Your task to perform on an android device: View the shopping cart on ebay.com. Search for "beats solo 3" on ebay.com, select the first entry, and add it to the cart. Image 0: 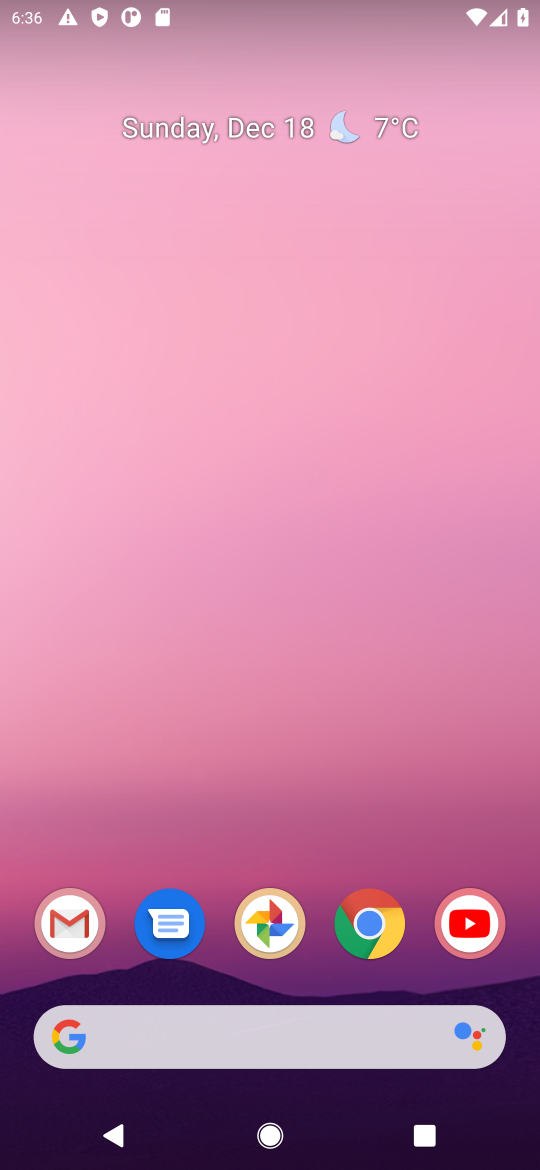
Step 0: press home button
Your task to perform on an android device: View the shopping cart on ebay.com. Search for "beats solo 3" on ebay.com, select the first entry, and add it to the cart. Image 1: 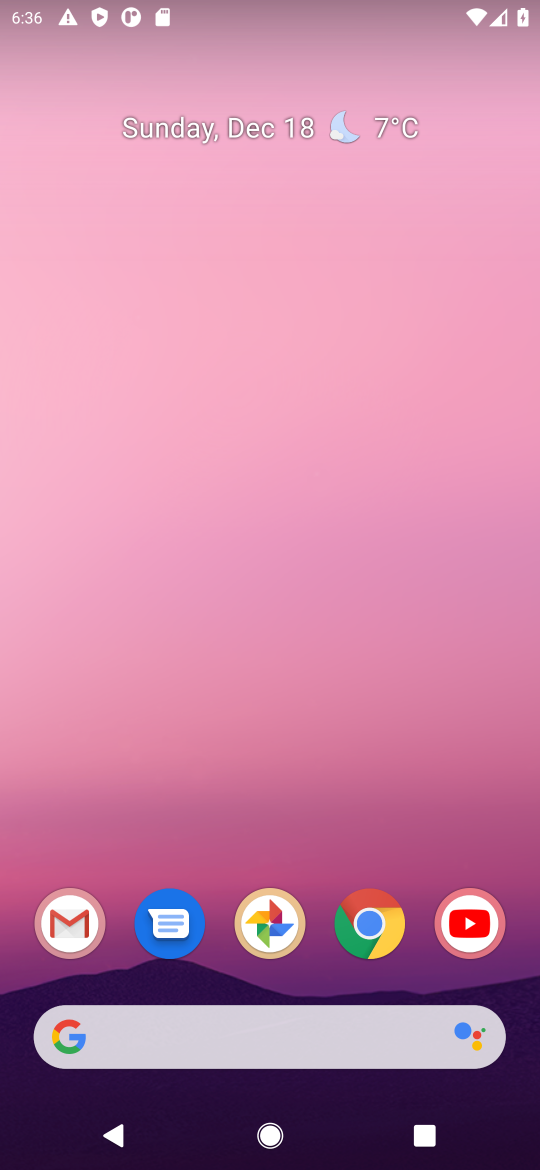
Step 1: click (146, 1026)
Your task to perform on an android device: View the shopping cart on ebay.com. Search for "beats solo 3" on ebay.com, select the first entry, and add it to the cart. Image 2: 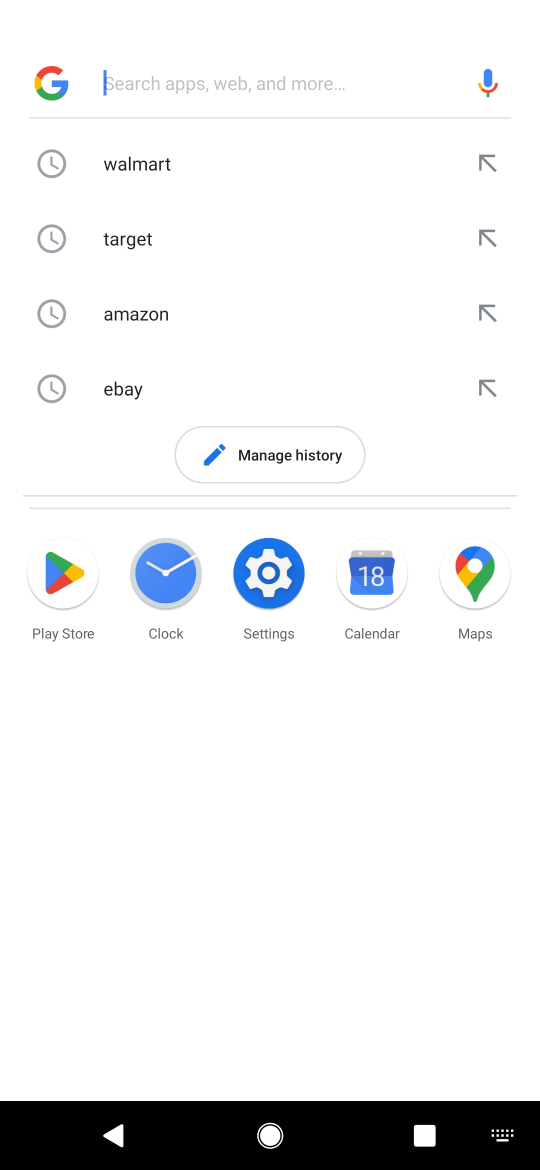
Step 2: type "ebay.com"
Your task to perform on an android device: View the shopping cart on ebay.com. Search for "beats solo 3" on ebay.com, select the first entry, and add it to the cart. Image 3: 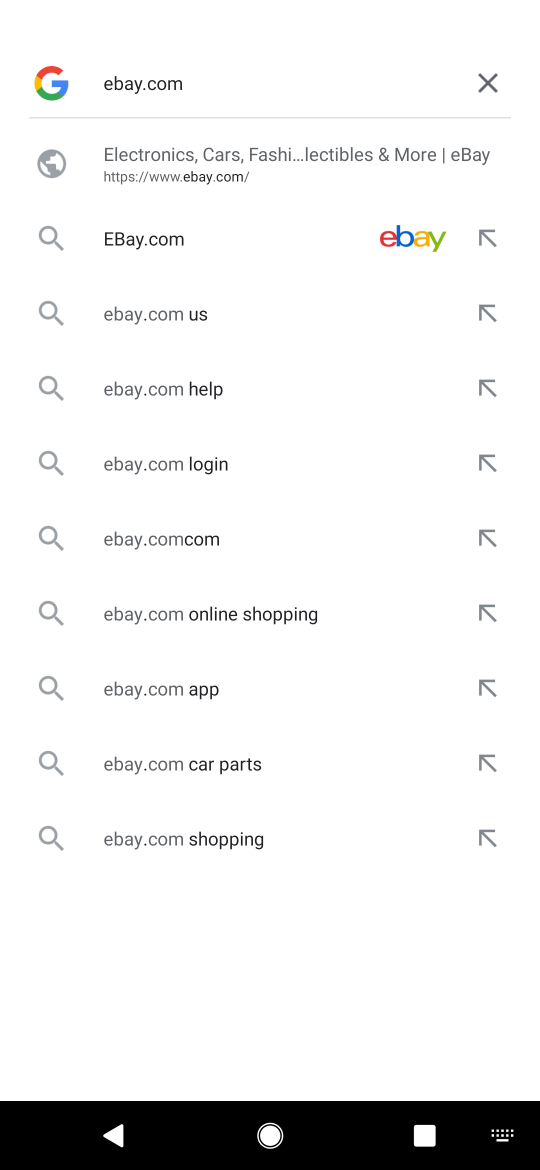
Step 3: press enter
Your task to perform on an android device: View the shopping cart on ebay.com. Search for "beats solo 3" on ebay.com, select the first entry, and add it to the cart. Image 4: 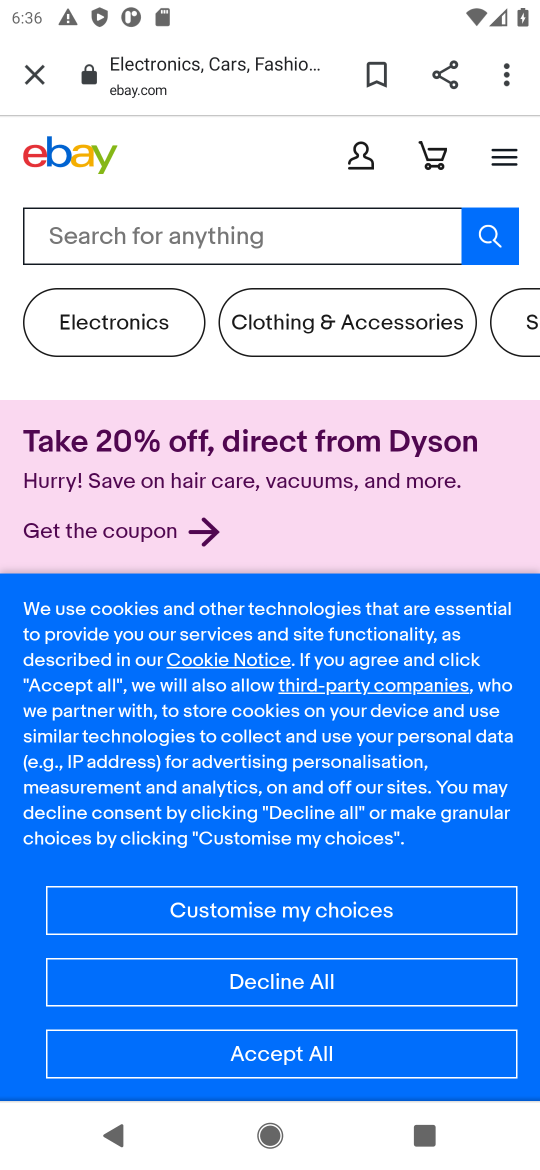
Step 4: click (226, 227)
Your task to perform on an android device: View the shopping cart on ebay.com. Search for "beats solo 3" on ebay.com, select the first entry, and add it to the cart. Image 5: 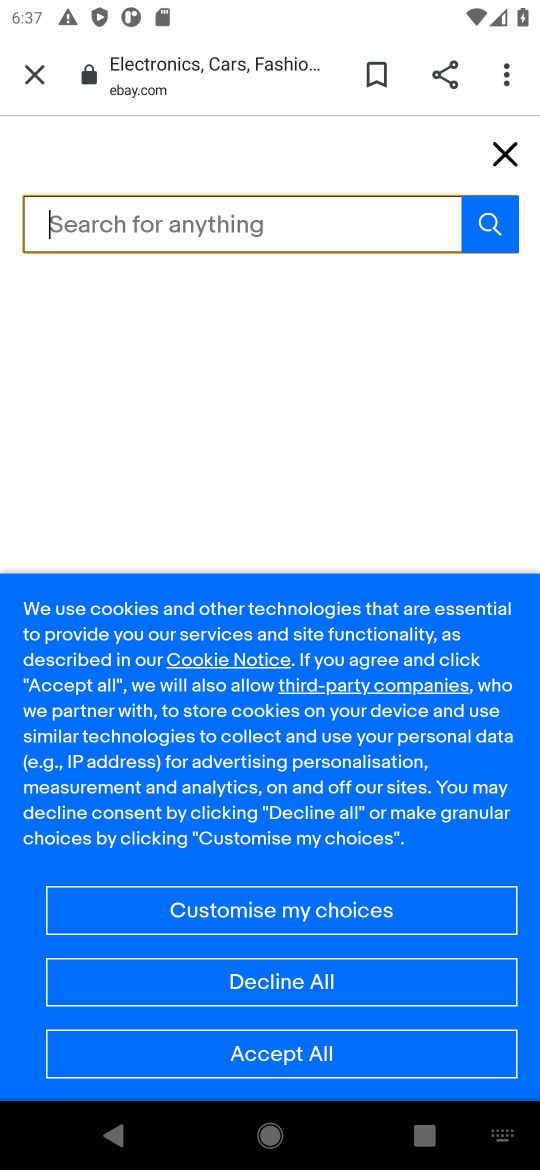
Step 5: press enter
Your task to perform on an android device: View the shopping cart on ebay.com. Search for "beats solo 3" on ebay.com, select the first entry, and add it to the cart. Image 6: 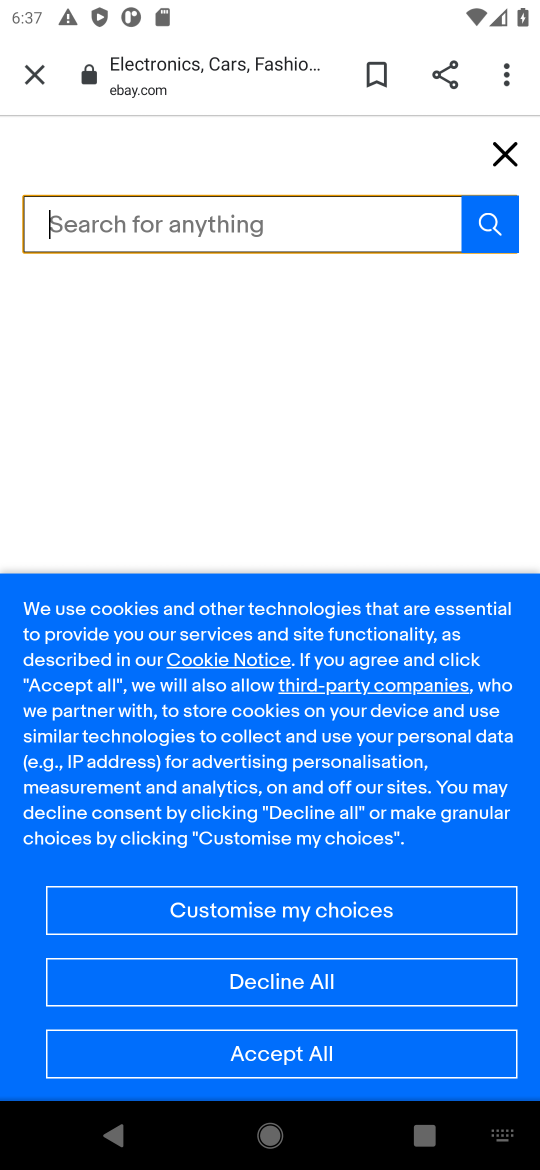
Step 6: type "beats solo 3"
Your task to perform on an android device: View the shopping cart on ebay.com. Search for "beats solo 3" on ebay.com, select the first entry, and add it to the cart. Image 7: 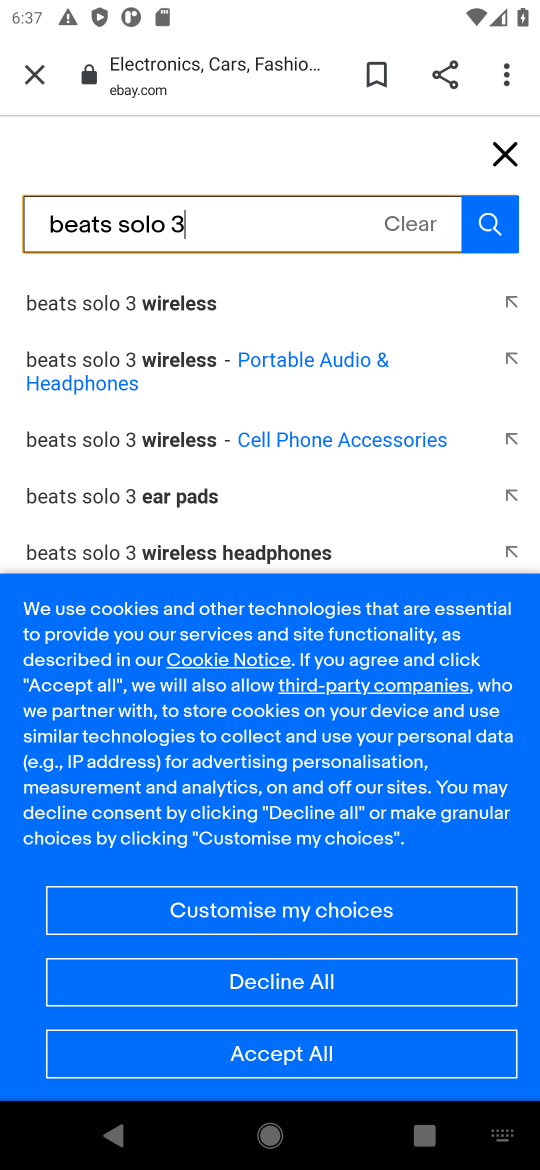
Step 7: click (486, 220)
Your task to perform on an android device: View the shopping cart on ebay.com. Search for "beats solo 3" on ebay.com, select the first entry, and add it to the cart. Image 8: 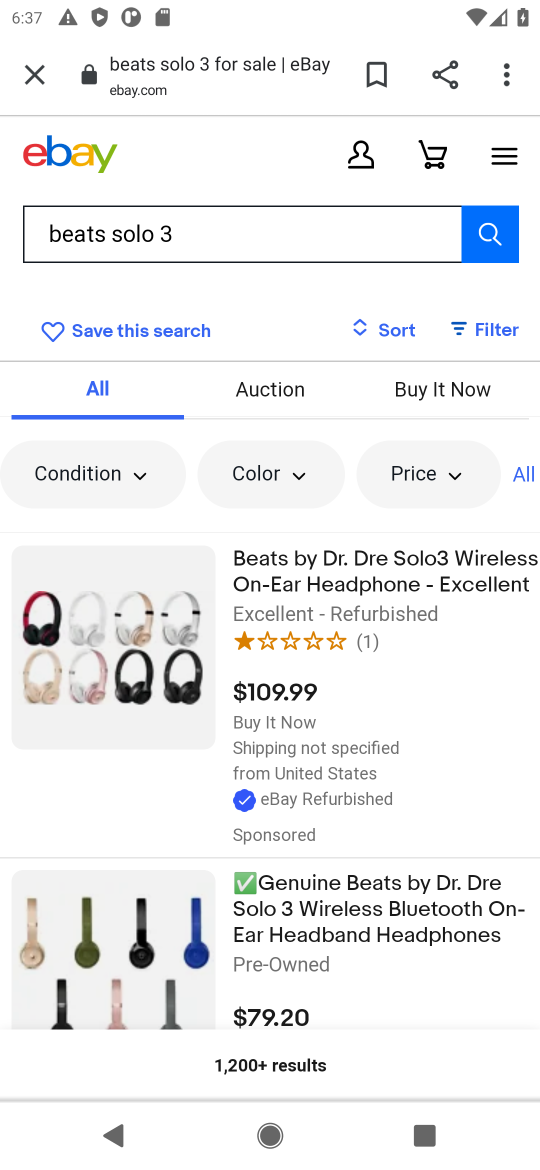
Step 8: drag from (359, 917) to (379, 550)
Your task to perform on an android device: View the shopping cart on ebay.com. Search for "beats solo 3" on ebay.com, select the first entry, and add it to the cart. Image 9: 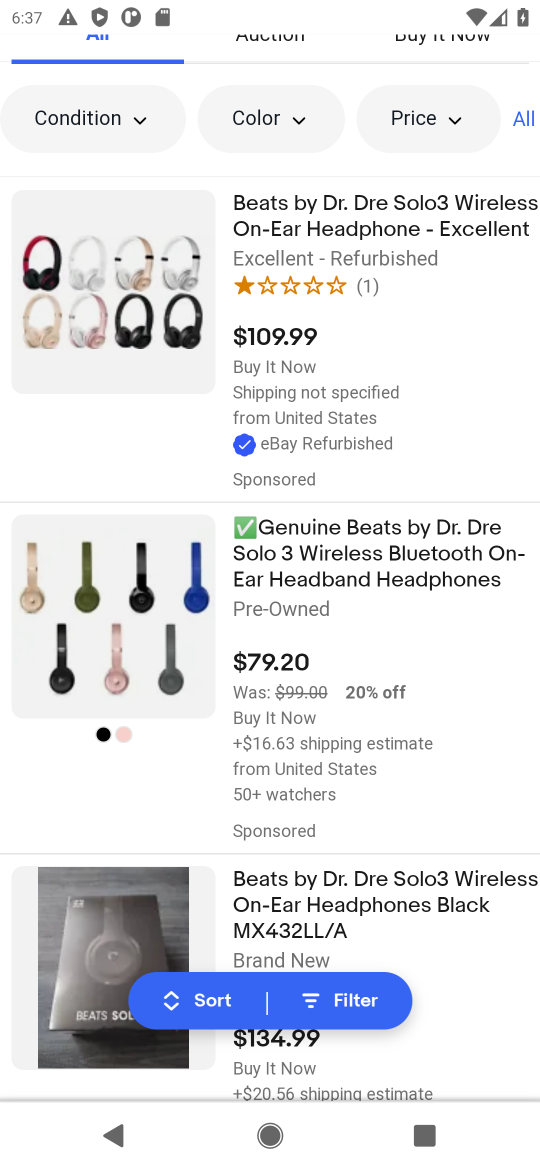
Step 9: click (307, 231)
Your task to perform on an android device: View the shopping cart on ebay.com. Search for "beats solo 3" on ebay.com, select the first entry, and add it to the cart. Image 10: 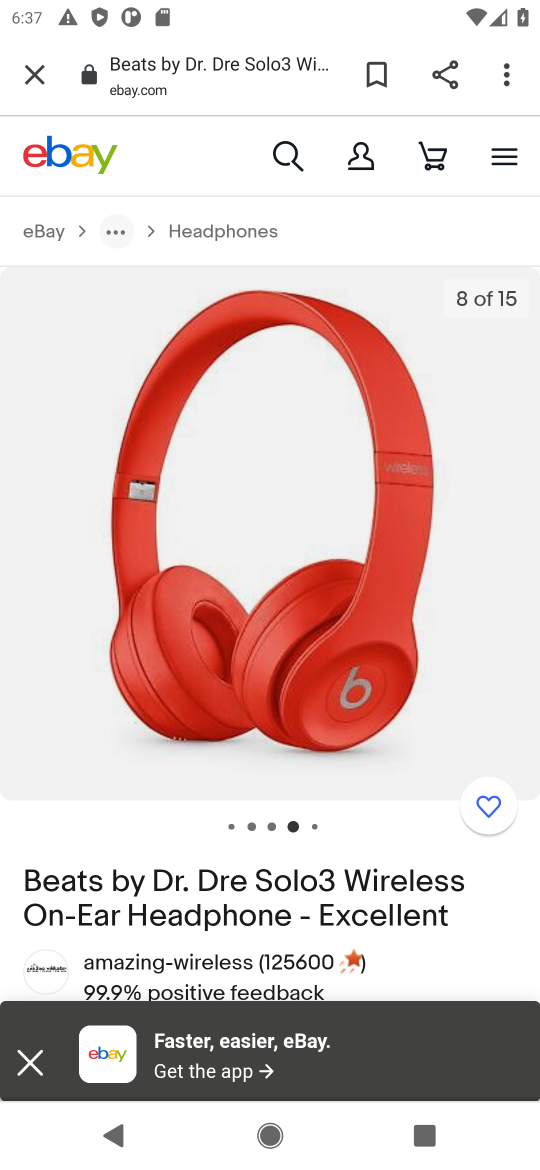
Step 10: click (18, 1063)
Your task to perform on an android device: View the shopping cart on ebay.com. Search for "beats solo 3" on ebay.com, select the first entry, and add it to the cart. Image 11: 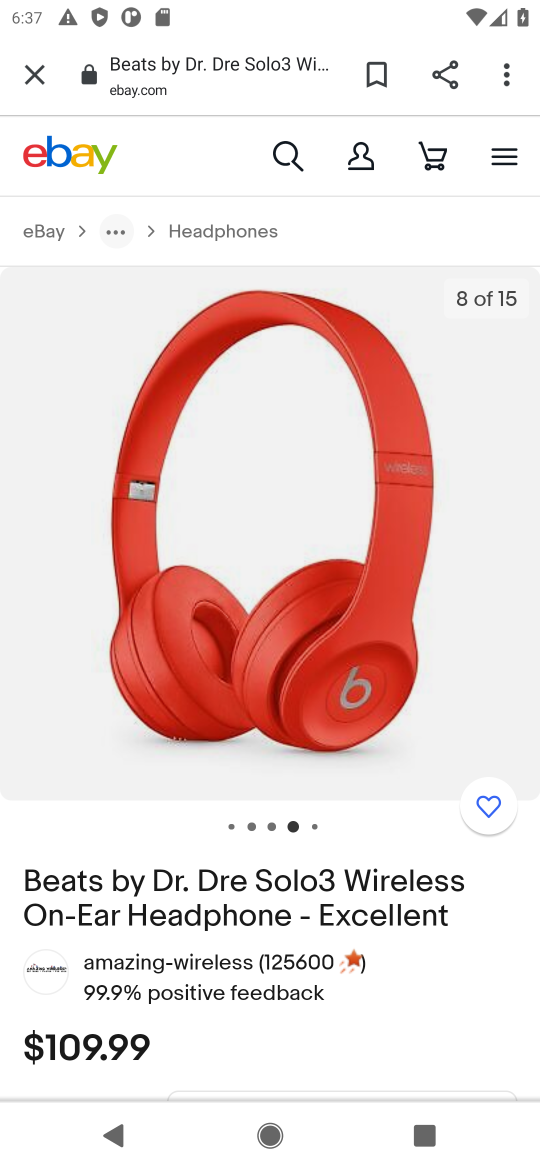
Step 11: drag from (327, 908) to (371, 478)
Your task to perform on an android device: View the shopping cart on ebay.com. Search for "beats solo 3" on ebay.com, select the first entry, and add it to the cart. Image 12: 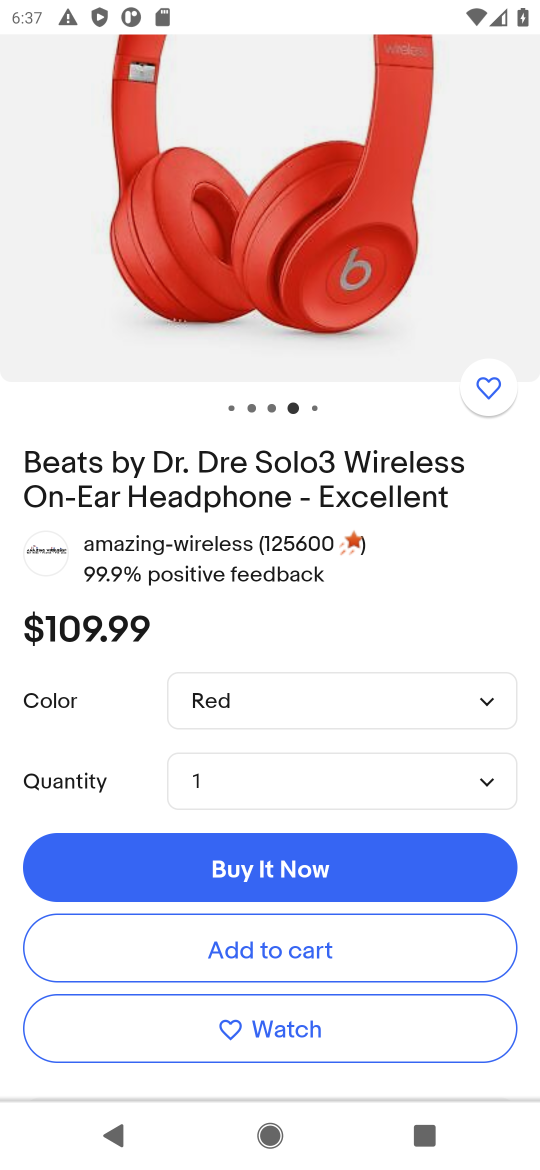
Step 12: drag from (336, 1001) to (363, 550)
Your task to perform on an android device: View the shopping cart on ebay.com. Search for "beats solo 3" on ebay.com, select the first entry, and add it to the cart. Image 13: 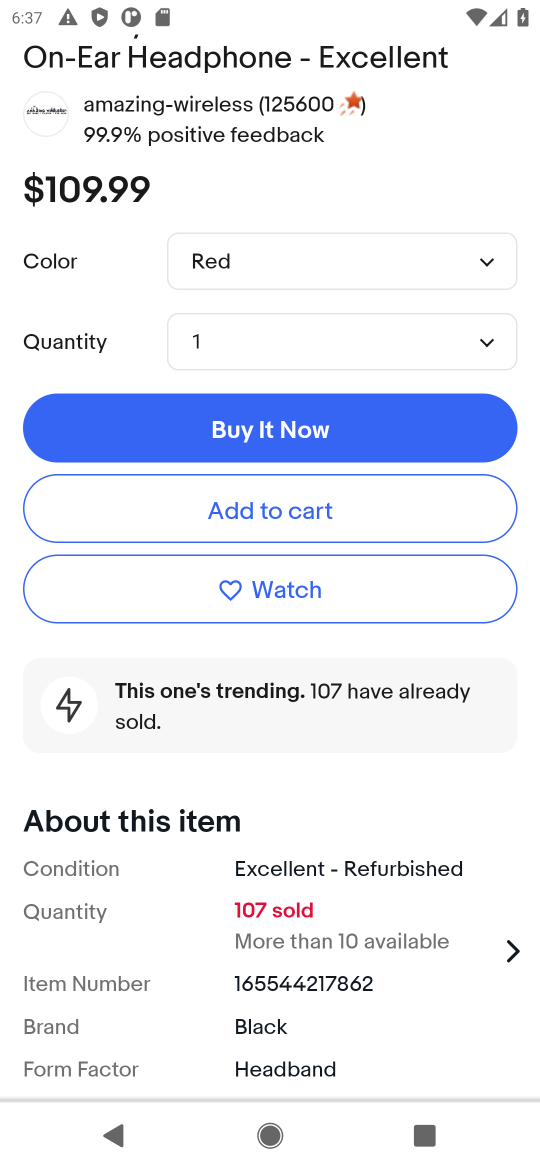
Step 13: click (215, 509)
Your task to perform on an android device: View the shopping cart on ebay.com. Search for "beats solo 3" on ebay.com, select the first entry, and add it to the cart. Image 14: 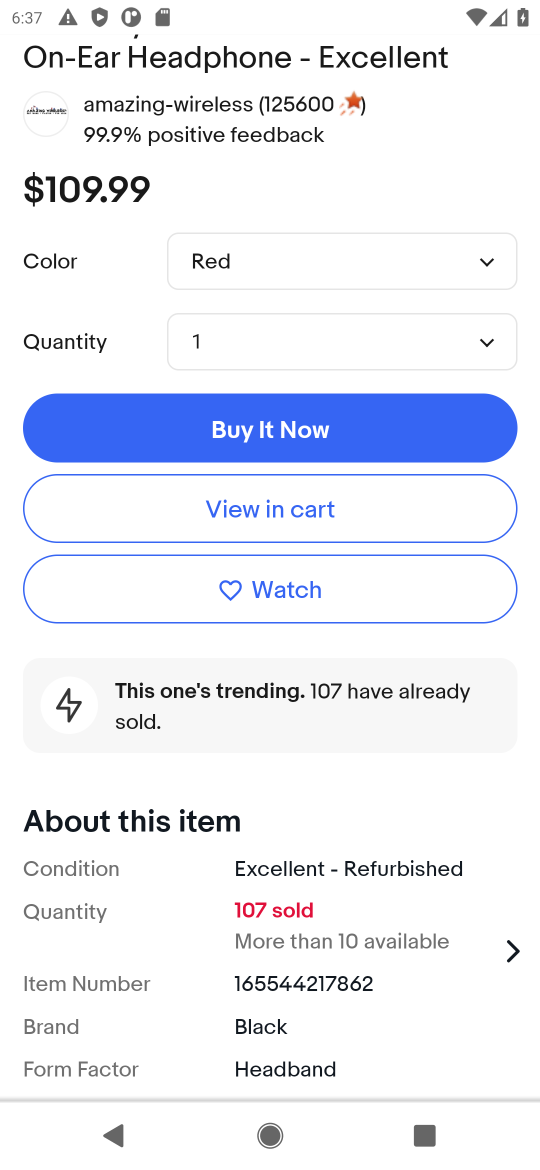
Step 14: task complete